Your task to perform on an android device: turn notification dots on Image 0: 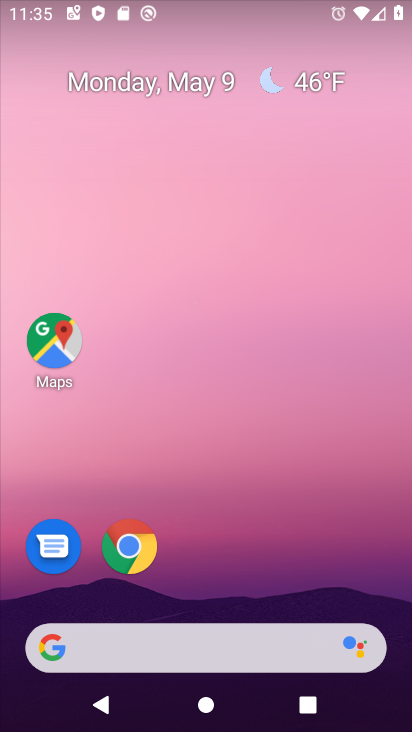
Step 0: drag from (333, 595) to (322, 19)
Your task to perform on an android device: turn notification dots on Image 1: 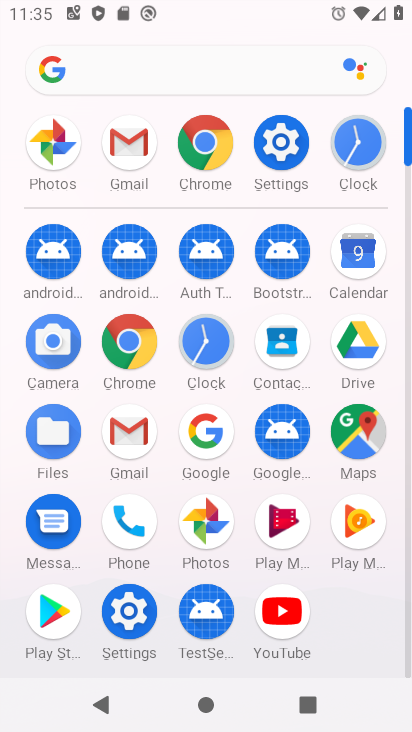
Step 1: click (280, 144)
Your task to perform on an android device: turn notification dots on Image 2: 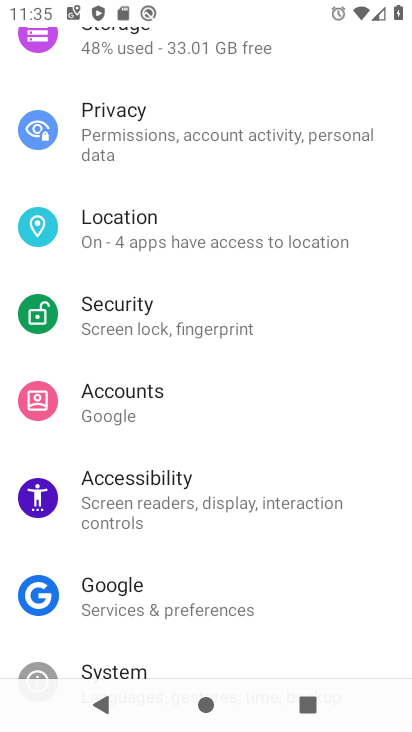
Step 2: drag from (315, 293) to (324, 554)
Your task to perform on an android device: turn notification dots on Image 3: 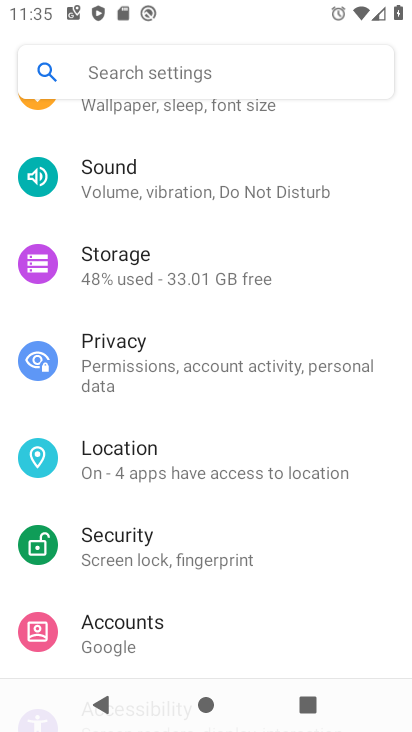
Step 3: drag from (344, 240) to (348, 590)
Your task to perform on an android device: turn notification dots on Image 4: 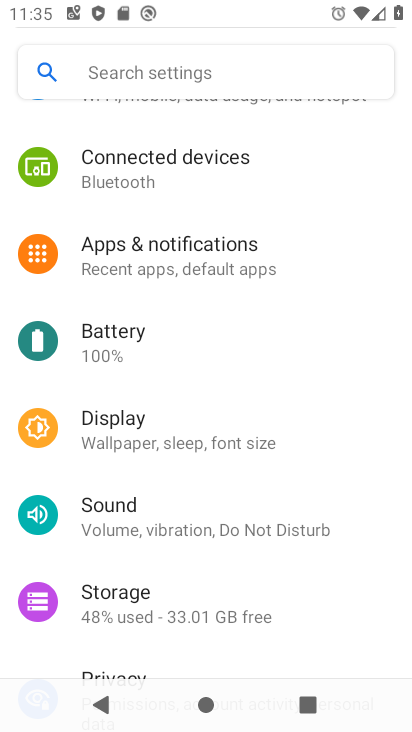
Step 4: click (188, 275)
Your task to perform on an android device: turn notification dots on Image 5: 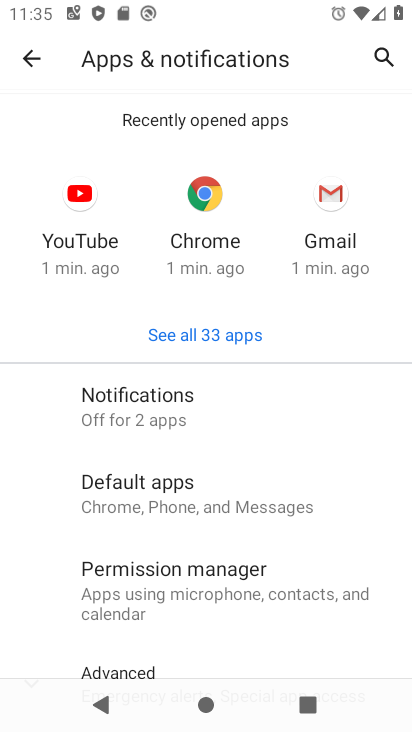
Step 5: click (151, 410)
Your task to perform on an android device: turn notification dots on Image 6: 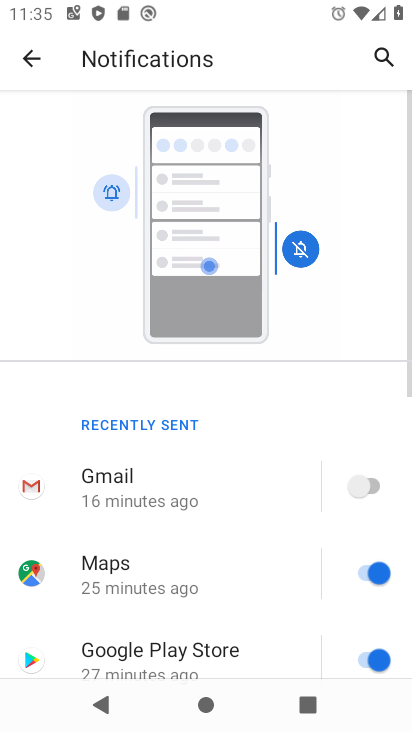
Step 6: drag from (270, 536) to (239, 81)
Your task to perform on an android device: turn notification dots on Image 7: 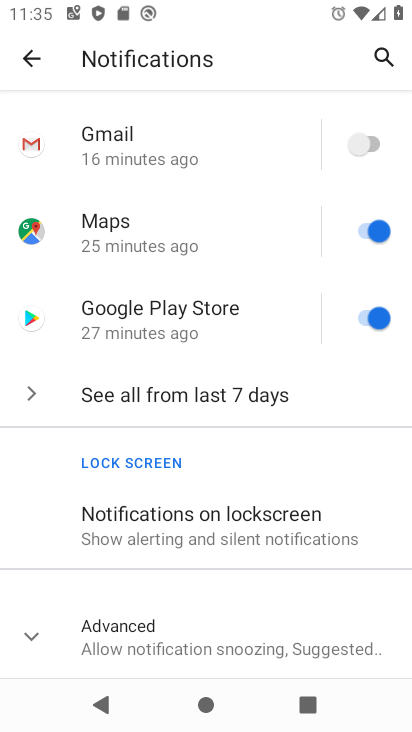
Step 7: drag from (182, 513) to (179, 246)
Your task to perform on an android device: turn notification dots on Image 8: 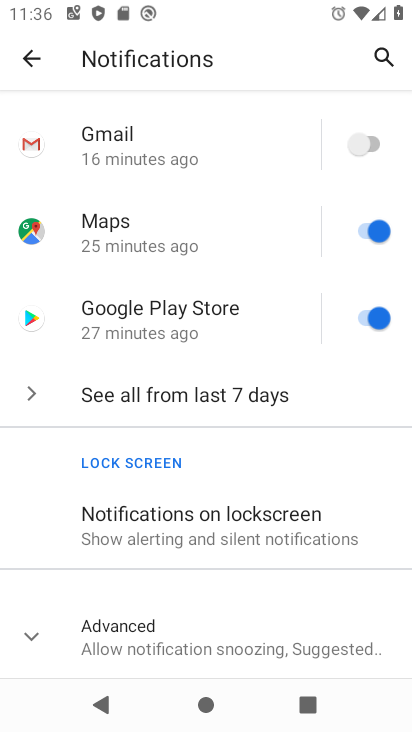
Step 8: click (33, 644)
Your task to perform on an android device: turn notification dots on Image 9: 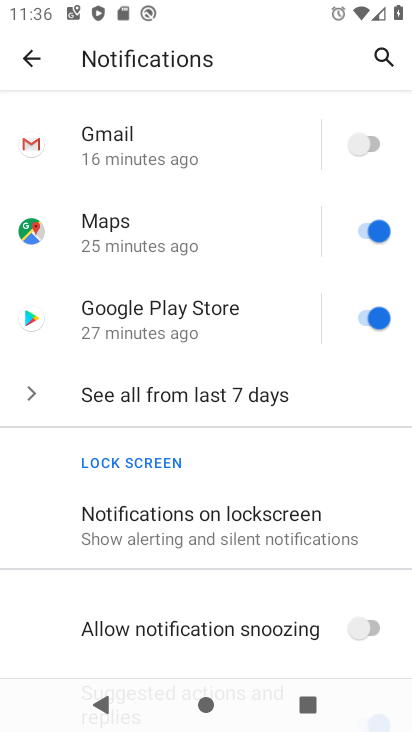
Step 9: drag from (179, 625) to (166, 194)
Your task to perform on an android device: turn notification dots on Image 10: 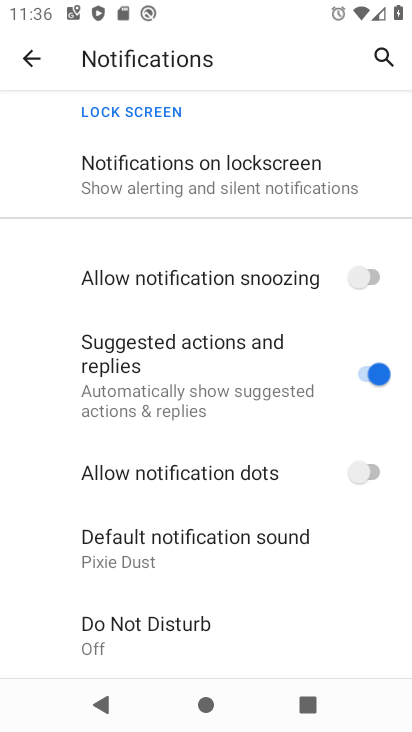
Step 10: click (360, 469)
Your task to perform on an android device: turn notification dots on Image 11: 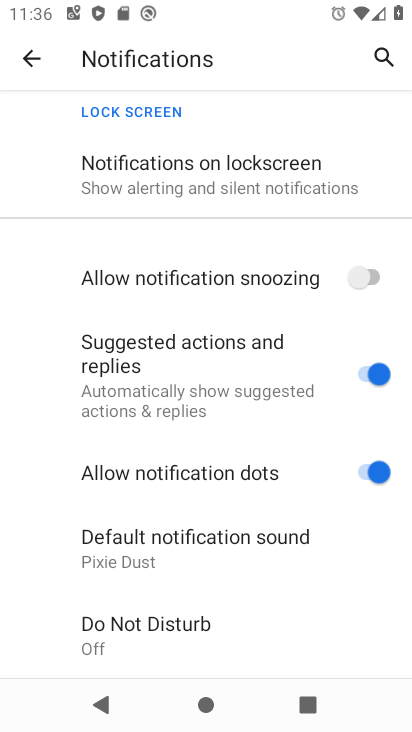
Step 11: task complete